Your task to perform on an android device: set the timer Image 0: 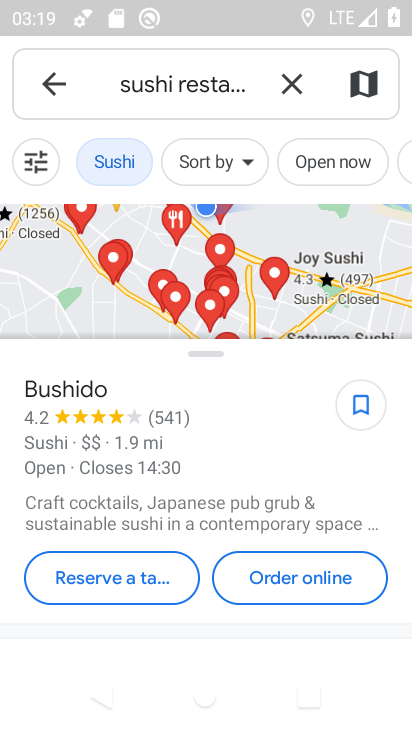
Step 0: press home button
Your task to perform on an android device: set the timer Image 1: 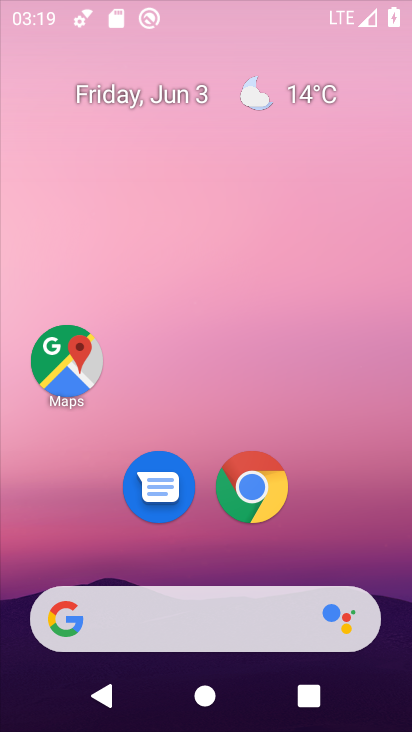
Step 1: drag from (310, 460) to (122, 68)
Your task to perform on an android device: set the timer Image 2: 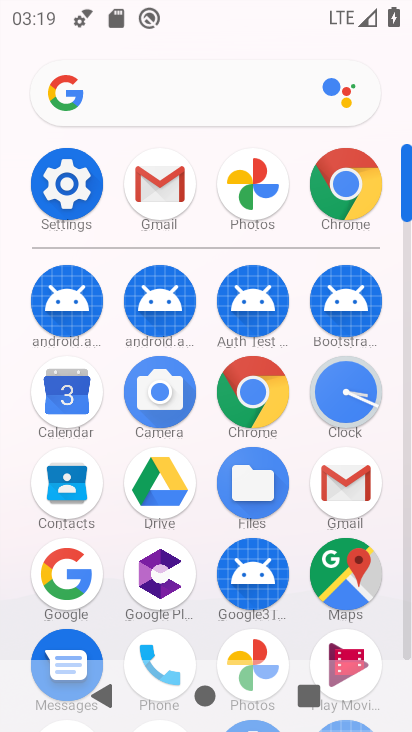
Step 2: click (344, 396)
Your task to perform on an android device: set the timer Image 3: 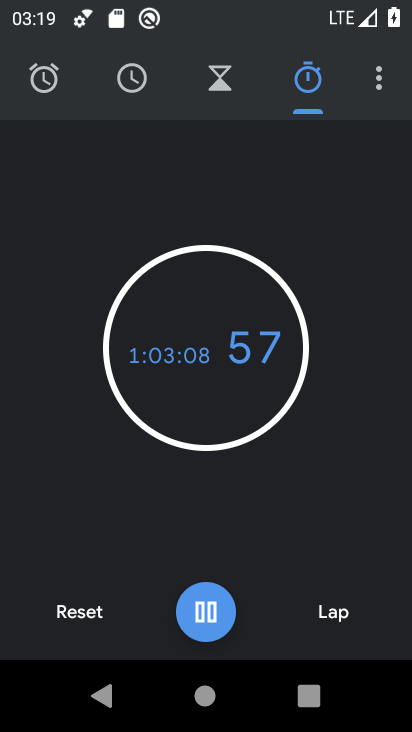
Step 3: click (230, 83)
Your task to perform on an android device: set the timer Image 4: 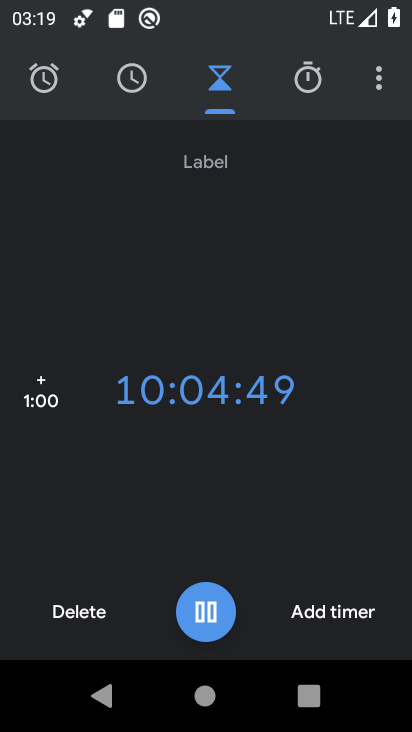
Step 4: click (79, 609)
Your task to perform on an android device: set the timer Image 5: 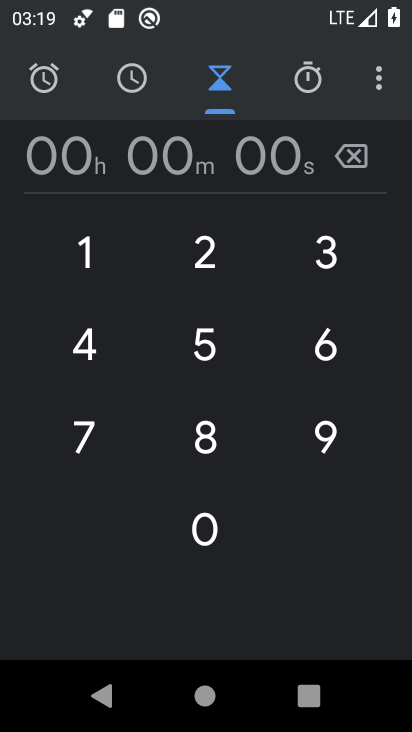
Step 5: click (98, 252)
Your task to perform on an android device: set the timer Image 6: 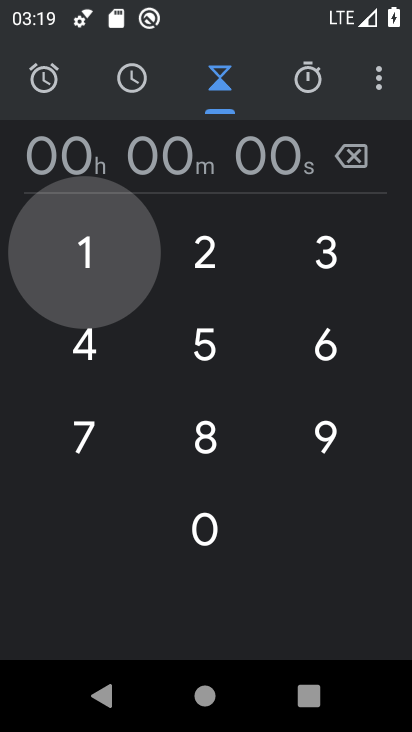
Step 6: click (100, 253)
Your task to perform on an android device: set the timer Image 7: 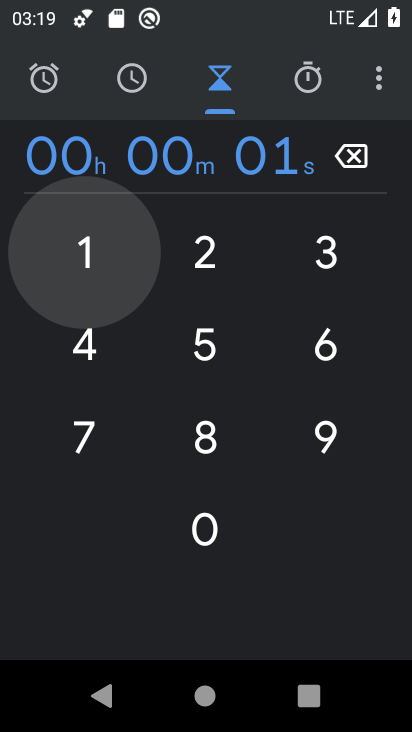
Step 7: click (100, 253)
Your task to perform on an android device: set the timer Image 8: 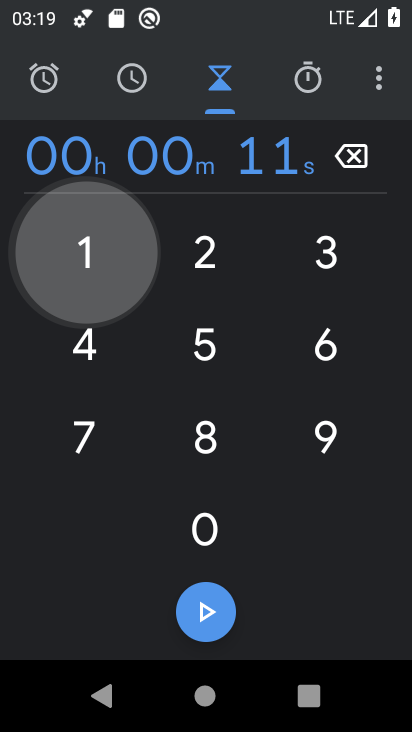
Step 8: click (101, 253)
Your task to perform on an android device: set the timer Image 9: 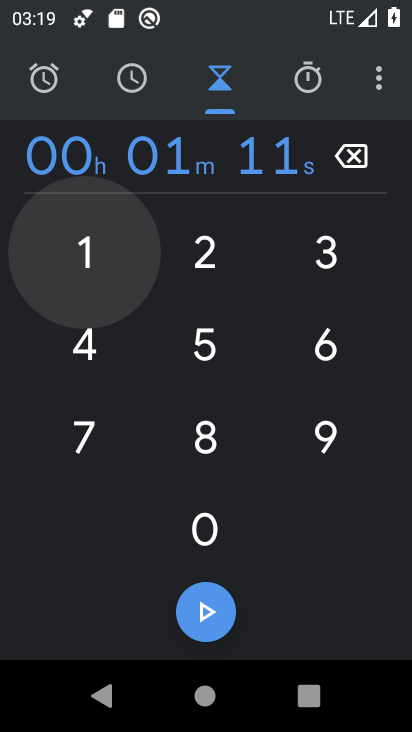
Step 9: click (101, 253)
Your task to perform on an android device: set the timer Image 10: 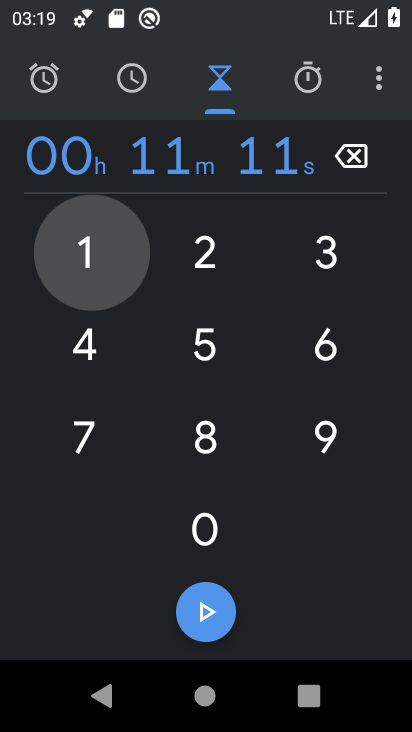
Step 10: click (101, 253)
Your task to perform on an android device: set the timer Image 11: 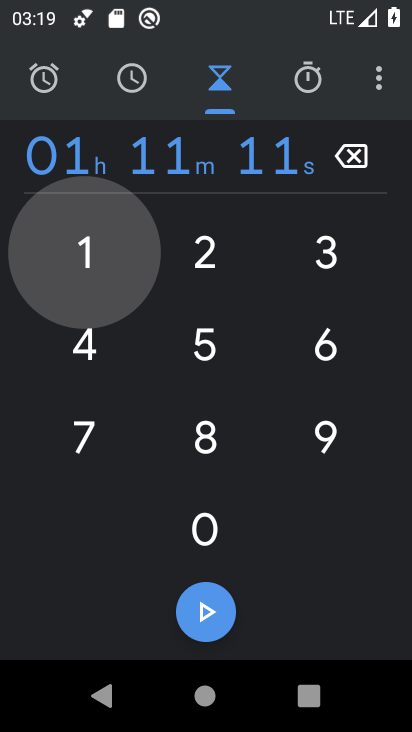
Step 11: click (101, 253)
Your task to perform on an android device: set the timer Image 12: 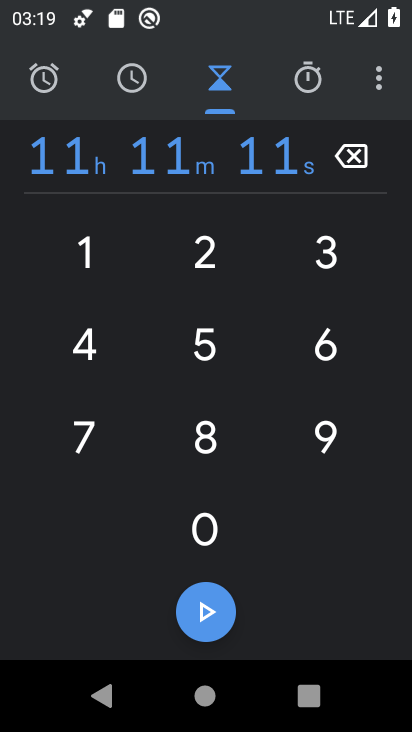
Step 12: click (212, 617)
Your task to perform on an android device: set the timer Image 13: 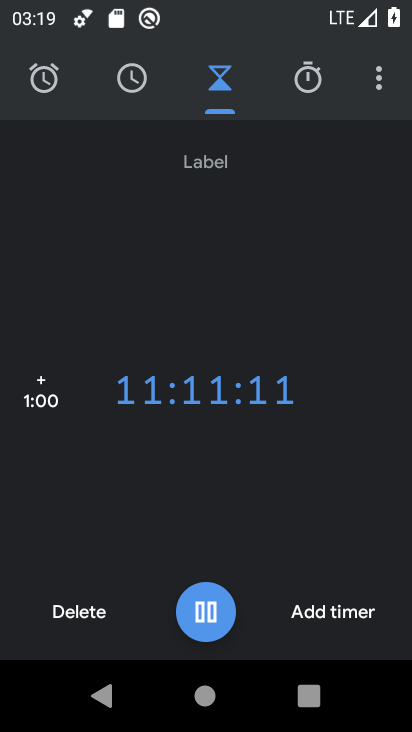
Step 13: task complete